Your task to perform on an android device: Open Chrome and go to settings Image 0: 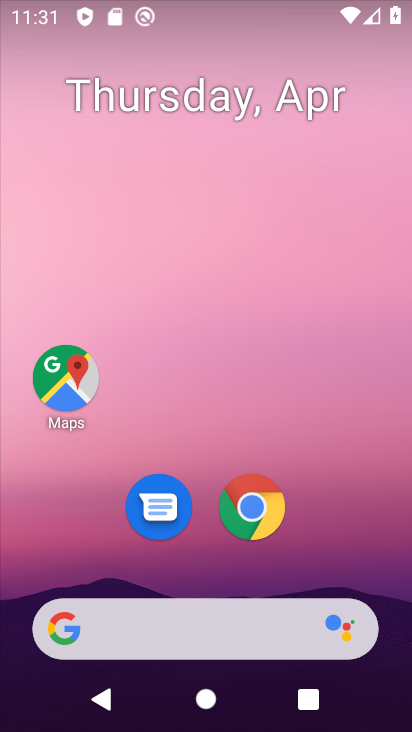
Step 0: click (250, 506)
Your task to perform on an android device: Open Chrome and go to settings Image 1: 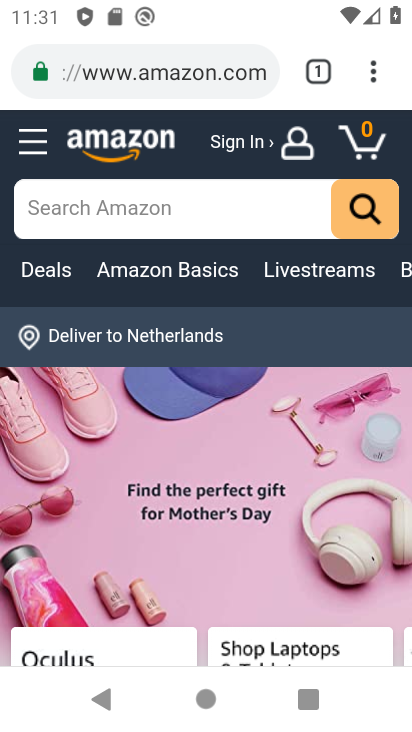
Step 1: task complete